Your task to perform on an android device: Open Google Chrome Image 0: 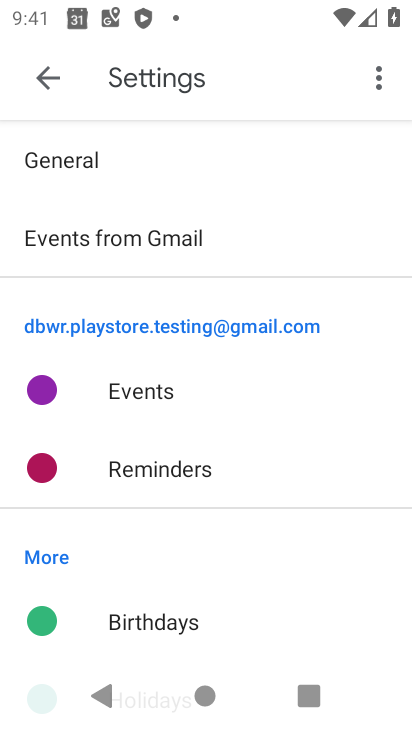
Step 0: press home button
Your task to perform on an android device: Open Google Chrome Image 1: 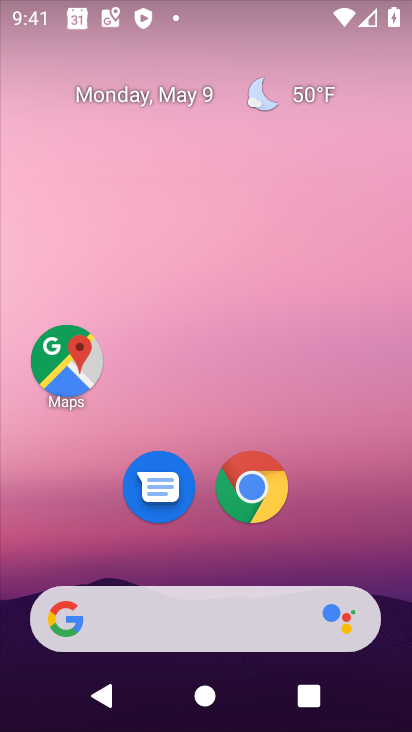
Step 1: click (270, 482)
Your task to perform on an android device: Open Google Chrome Image 2: 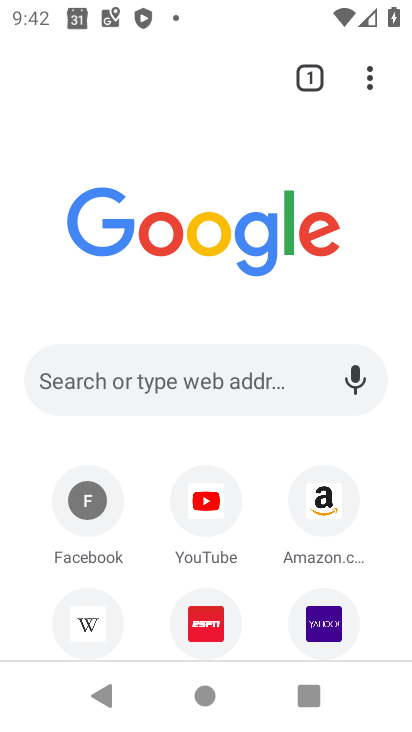
Step 2: task complete